Your task to perform on an android device: Open Google Maps Image 0: 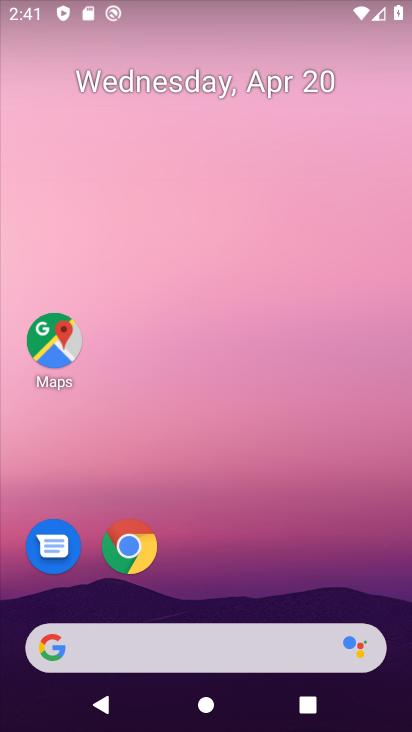
Step 0: click (71, 349)
Your task to perform on an android device: Open Google Maps Image 1: 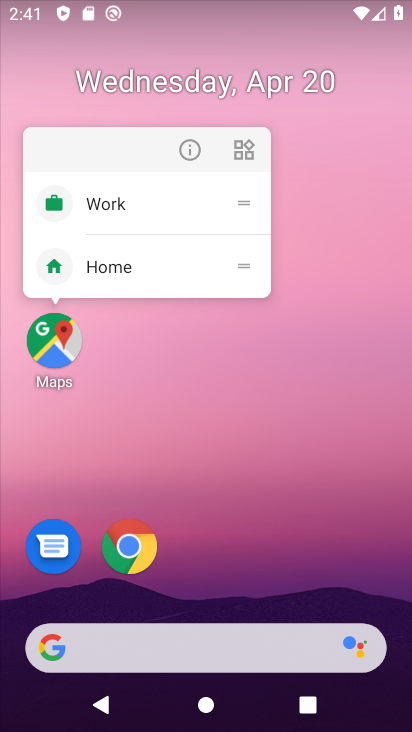
Step 1: click (48, 340)
Your task to perform on an android device: Open Google Maps Image 2: 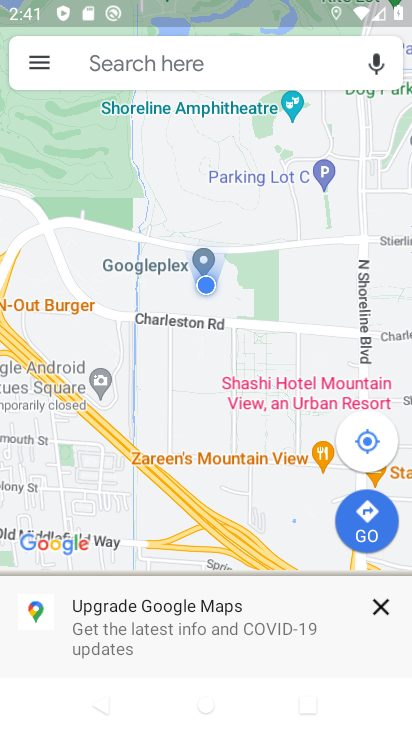
Step 2: task complete